Your task to perform on an android device: turn off priority inbox in the gmail app Image 0: 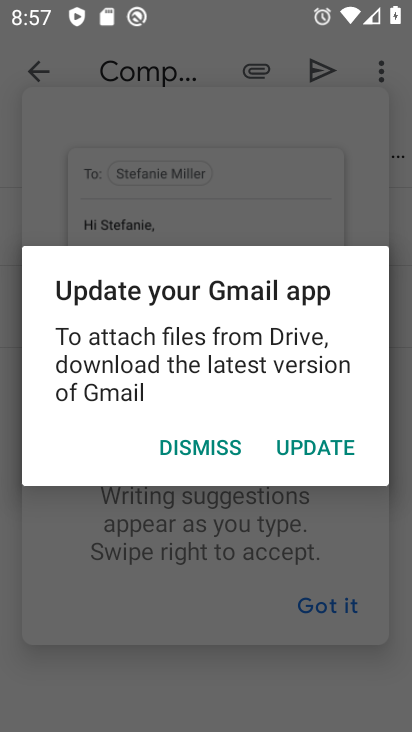
Step 0: press home button
Your task to perform on an android device: turn off priority inbox in the gmail app Image 1: 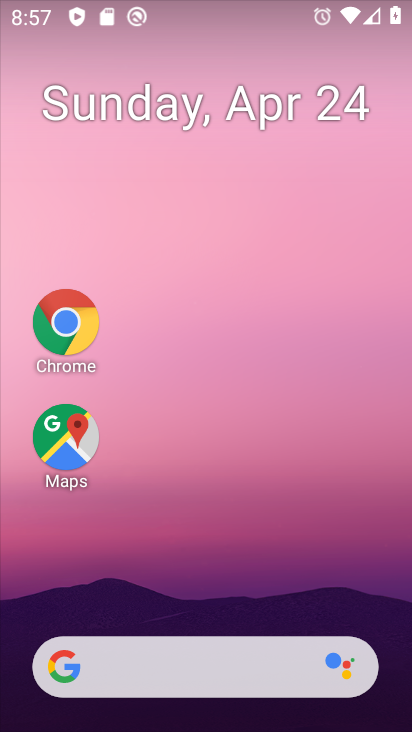
Step 1: drag from (185, 570) to (254, 32)
Your task to perform on an android device: turn off priority inbox in the gmail app Image 2: 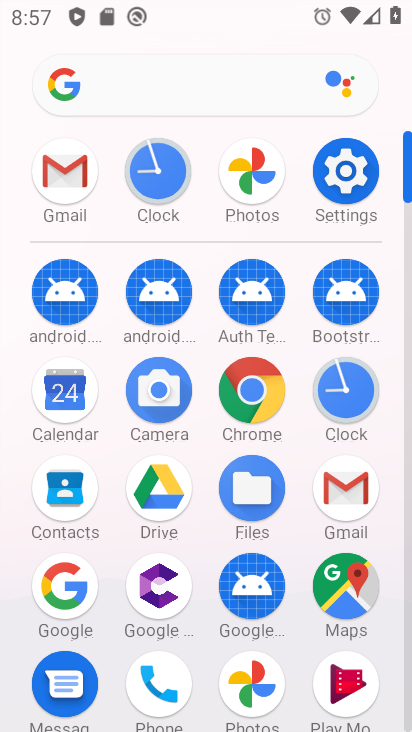
Step 2: click (336, 499)
Your task to perform on an android device: turn off priority inbox in the gmail app Image 3: 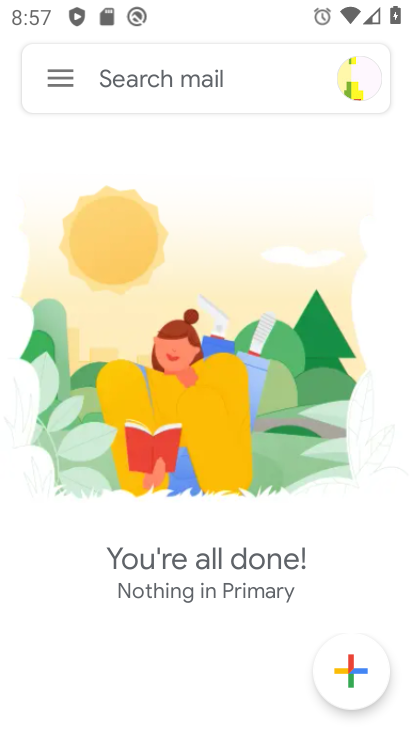
Step 3: click (59, 70)
Your task to perform on an android device: turn off priority inbox in the gmail app Image 4: 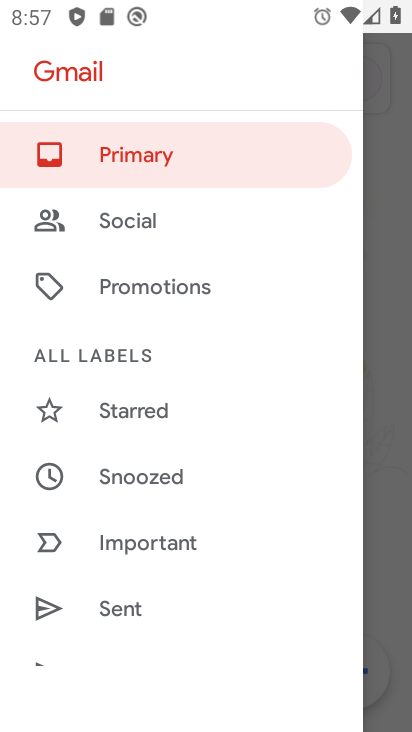
Step 4: drag from (200, 513) to (128, 77)
Your task to perform on an android device: turn off priority inbox in the gmail app Image 5: 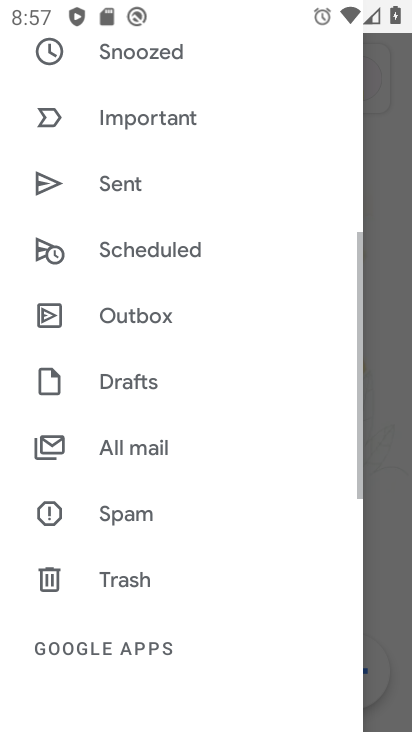
Step 5: drag from (152, 560) to (125, 220)
Your task to perform on an android device: turn off priority inbox in the gmail app Image 6: 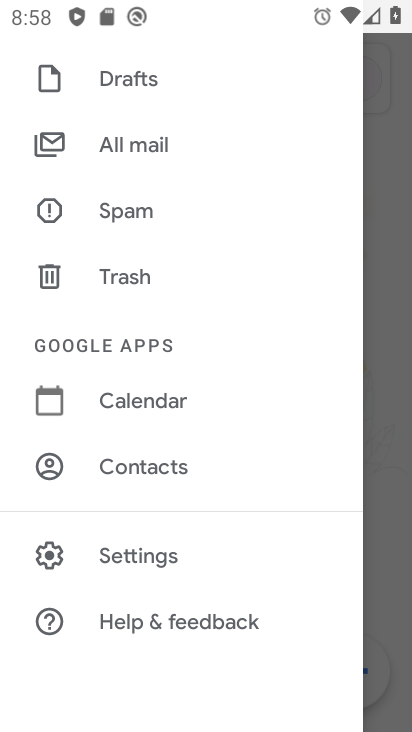
Step 6: click (117, 557)
Your task to perform on an android device: turn off priority inbox in the gmail app Image 7: 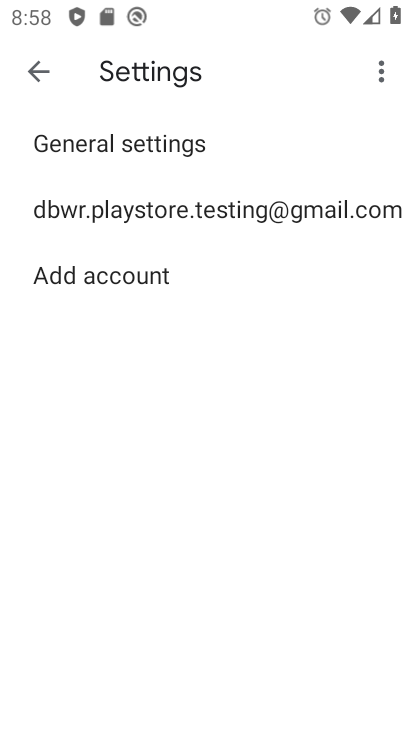
Step 7: click (116, 203)
Your task to perform on an android device: turn off priority inbox in the gmail app Image 8: 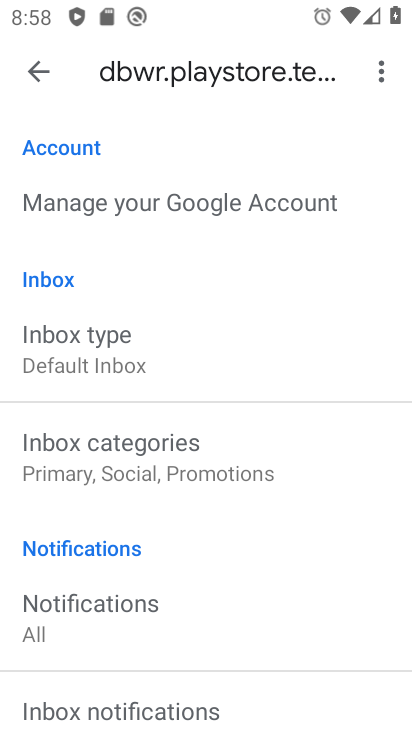
Step 8: click (85, 348)
Your task to perform on an android device: turn off priority inbox in the gmail app Image 9: 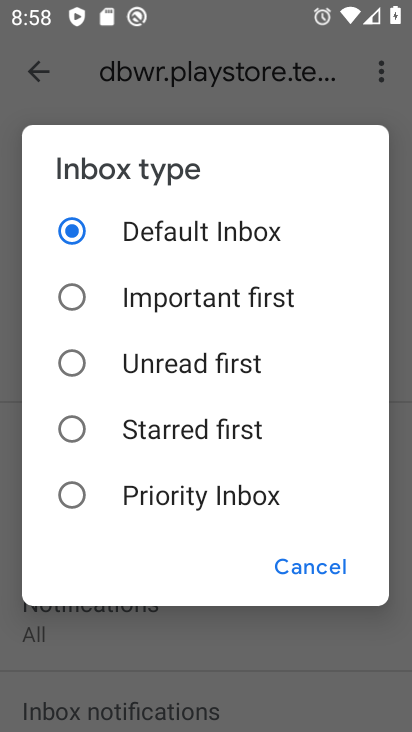
Step 9: click (72, 299)
Your task to perform on an android device: turn off priority inbox in the gmail app Image 10: 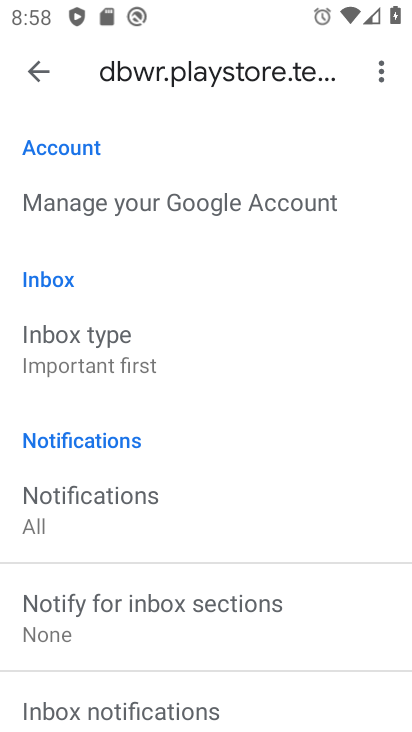
Step 10: task complete